Your task to perform on an android device: turn on translation in the chrome app Image 0: 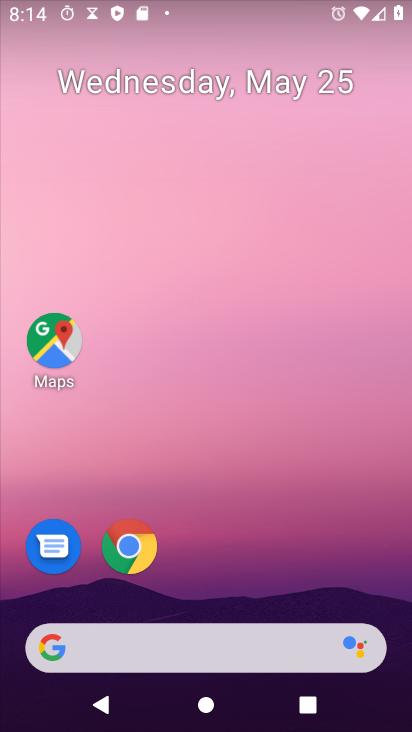
Step 0: click (152, 555)
Your task to perform on an android device: turn on translation in the chrome app Image 1: 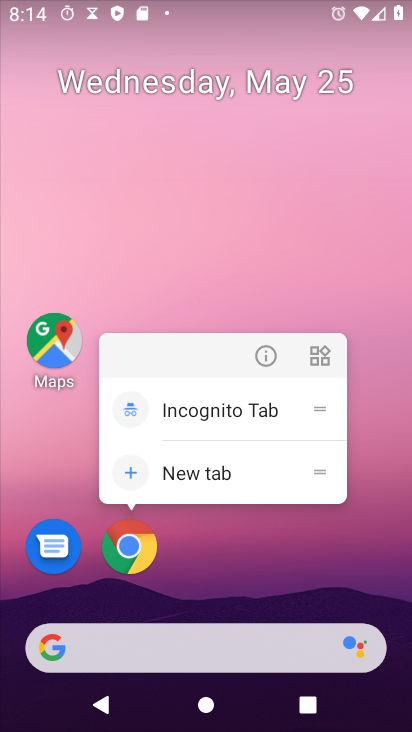
Step 1: click (120, 555)
Your task to perform on an android device: turn on translation in the chrome app Image 2: 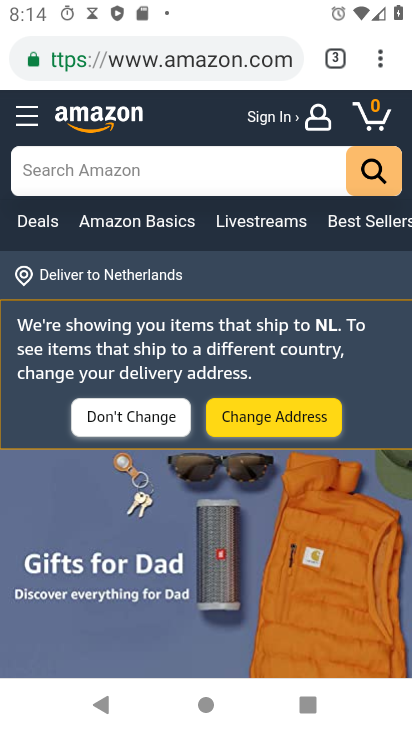
Step 2: click (383, 66)
Your task to perform on an android device: turn on translation in the chrome app Image 3: 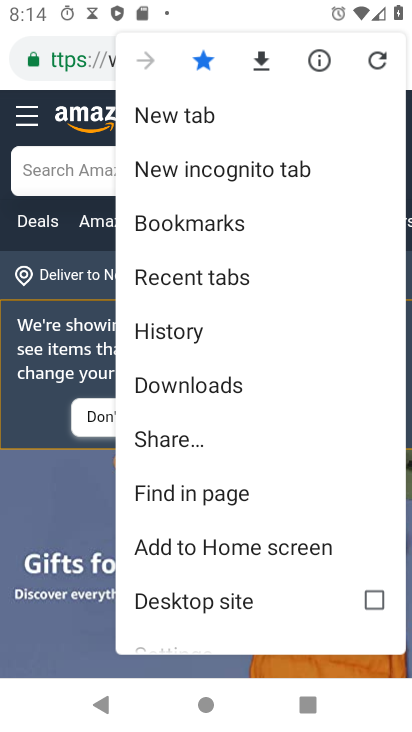
Step 3: drag from (198, 590) to (296, 244)
Your task to perform on an android device: turn on translation in the chrome app Image 4: 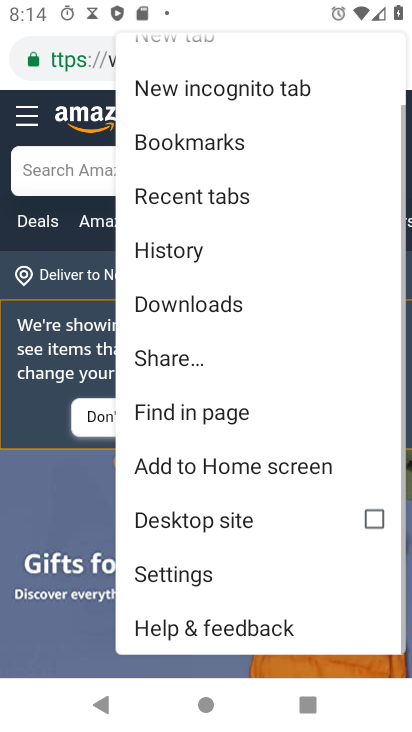
Step 4: click (198, 581)
Your task to perform on an android device: turn on translation in the chrome app Image 5: 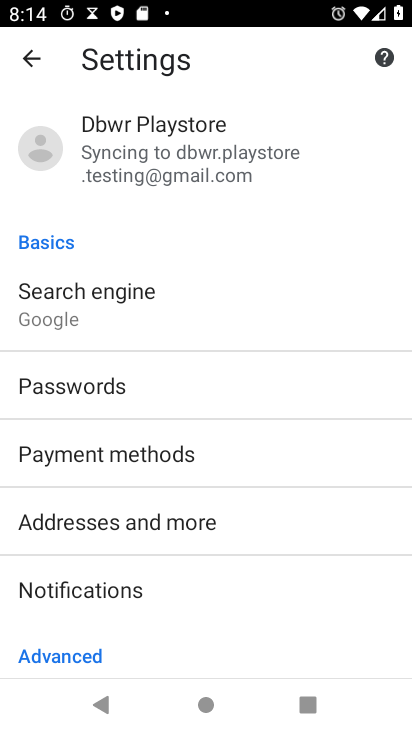
Step 5: drag from (80, 607) to (62, 293)
Your task to perform on an android device: turn on translation in the chrome app Image 6: 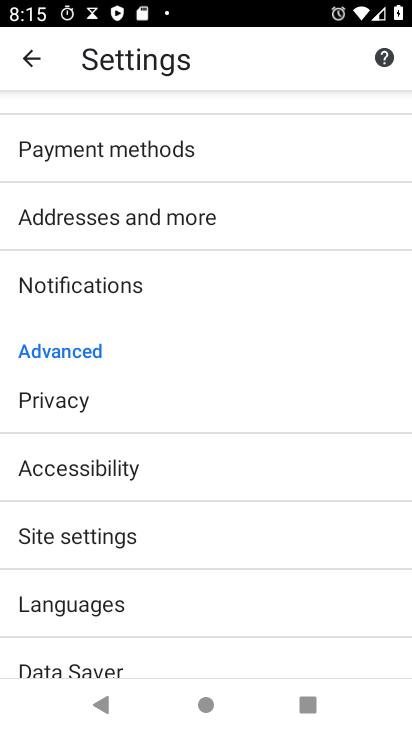
Step 6: click (71, 612)
Your task to perform on an android device: turn on translation in the chrome app Image 7: 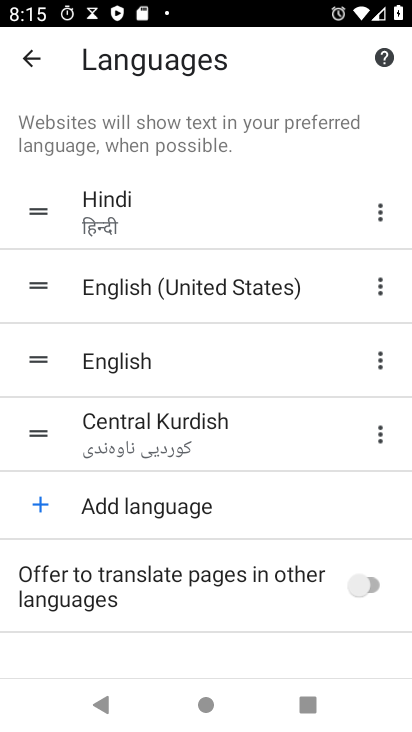
Step 7: click (374, 575)
Your task to perform on an android device: turn on translation in the chrome app Image 8: 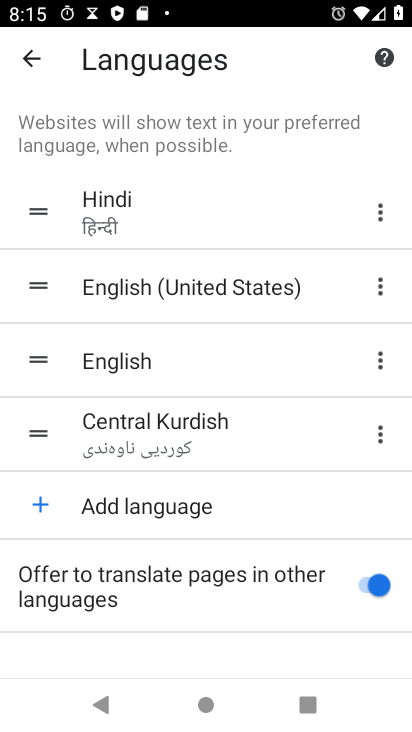
Step 8: task complete